Your task to perform on an android device: snooze an email in the gmail app Image 0: 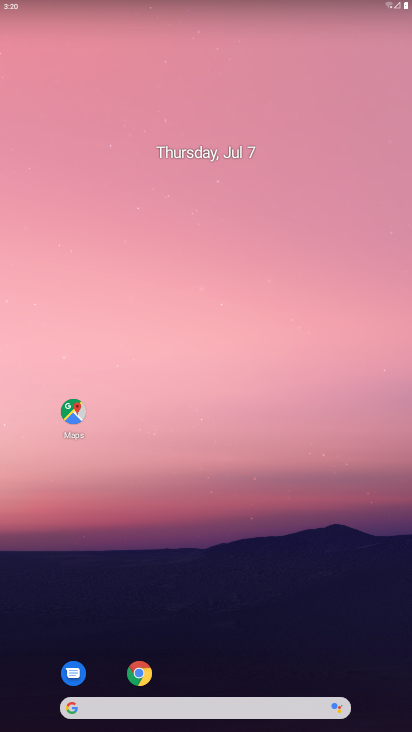
Step 0: drag from (171, 692) to (256, 168)
Your task to perform on an android device: snooze an email in the gmail app Image 1: 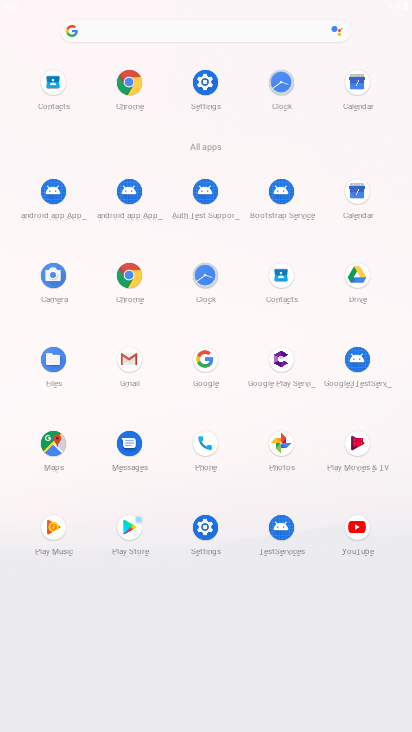
Step 1: click (126, 363)
Your task to perform on an android device: snooze an email in the gmail app Image 2: 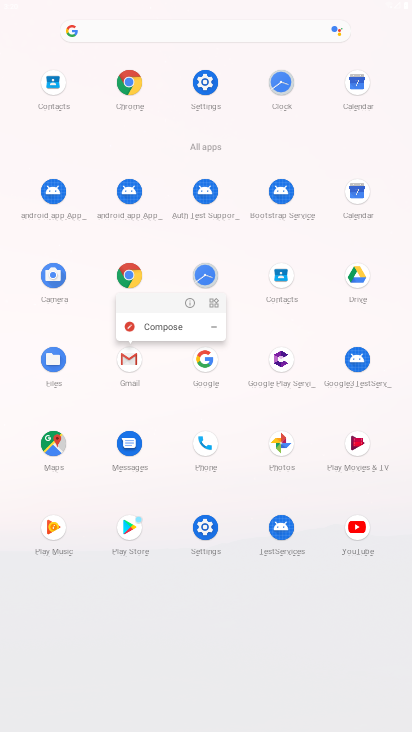
Step 2: click (133, 360)
Your task to perform on an android device: snooze an email in the gmail app Image 3: 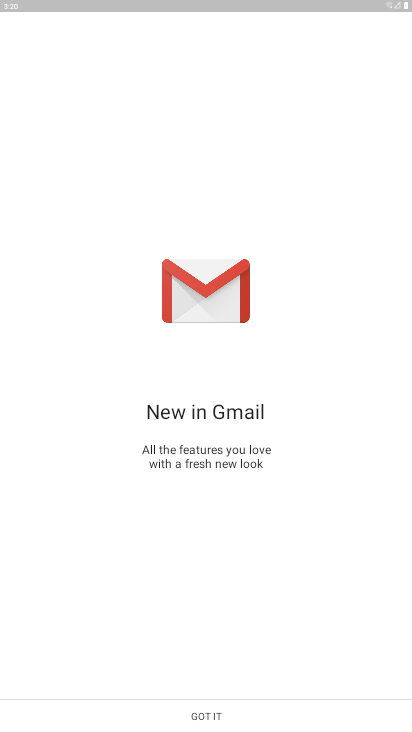
Step 3: click (214, 721)
Your task to perform on an android device: snooze an email in the gmail app Image 4: 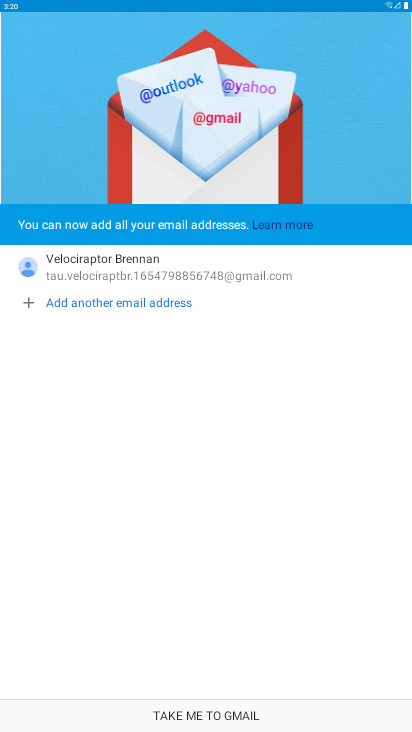
Step 4: click (204, 711)
Your task to perform on an android device: snooze an email in the gmail app Image 5: 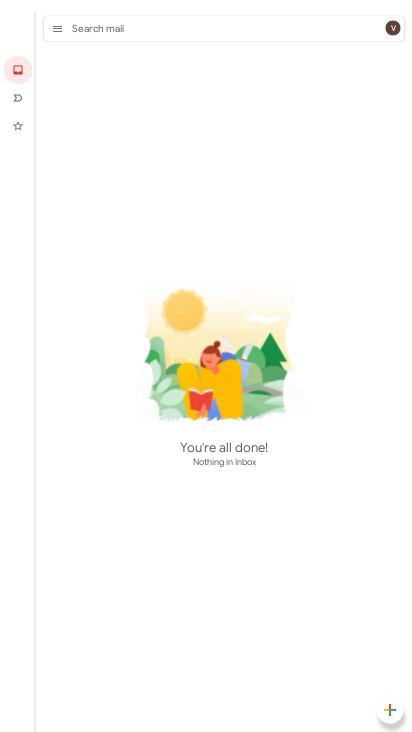
Step 5: click (58, 31)
Your task to perform on an android device: snooze an email in the gmail app Image 6: 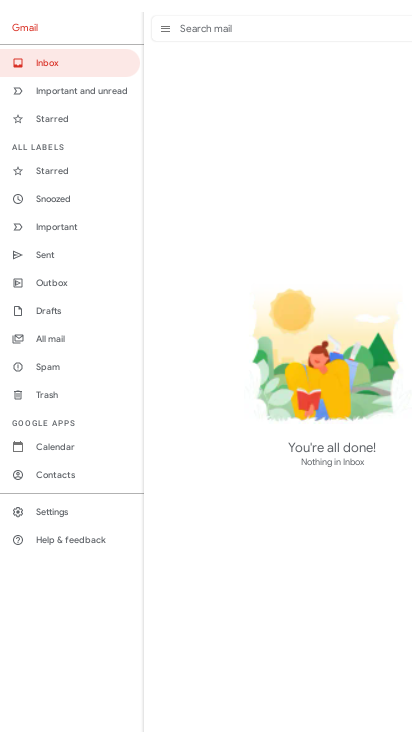
Step 6: click (78, 59)
Your task to perform on an android device: snooze an email in the gmail app Image 7: 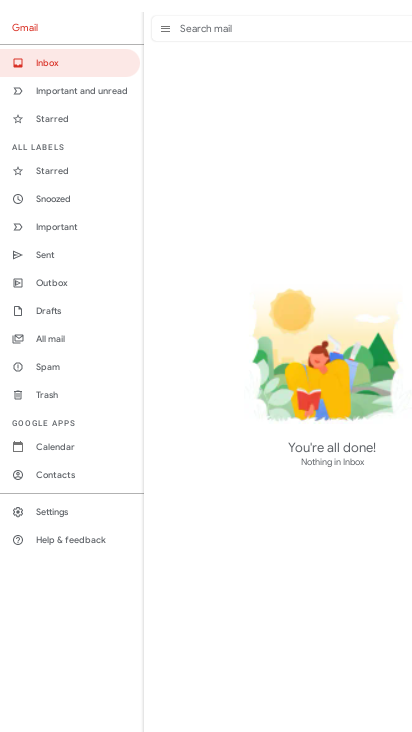
Step 7: task complete